Your task to perform on an android device: Clear the cart on amazon.com. Image 0: 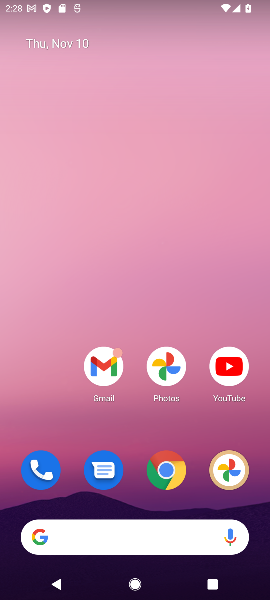
Step 0: click (169, 462)
Your task to perform on an android device: Clear the cart on amazon.com. Image 1: 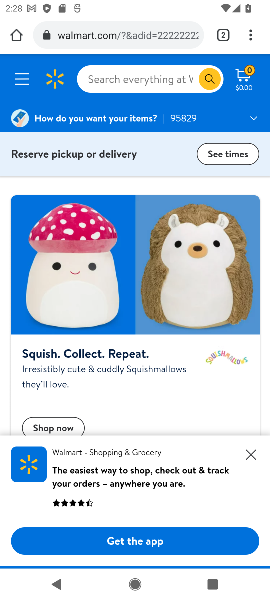
Step 1: click (224, 34)
Your task to perform on an android device: Clear the cart on amazon.com. Image 2: 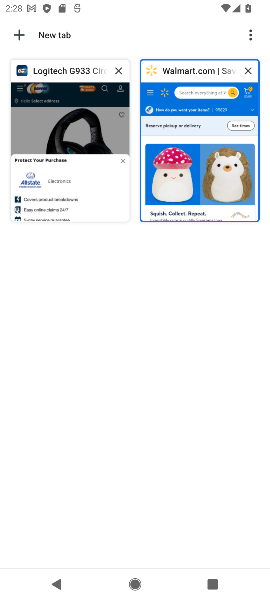
Step 2: click (16, 33)
Your task to perform on an android device: Clear the cart on amazon.com. Image 3: 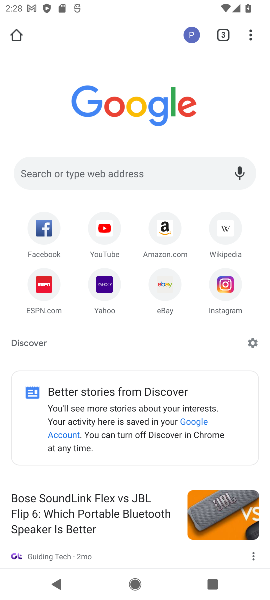
Step 3: click (167, 229)
Your task to perform on an android device: Clear the cart on amazon.com. Image 4: 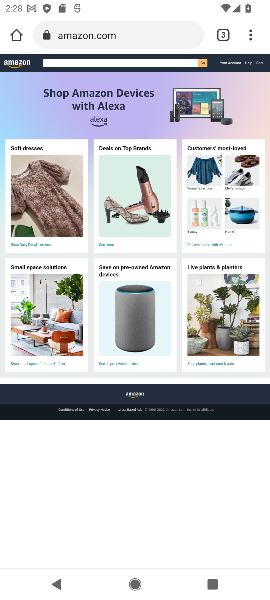
Step 4: task complete